Your task to perform on an android device: Open Google Maps and go to "Timeline" Image 0: 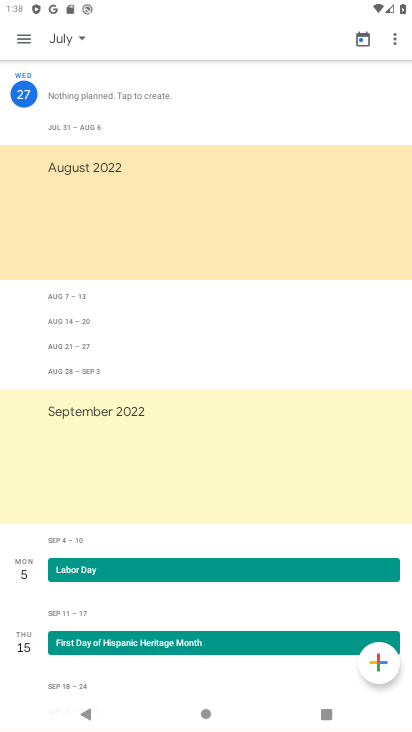
Step 0: press home button
Your task to perform on an android device: Open Google Maps and go to "Timeline" Image 1: 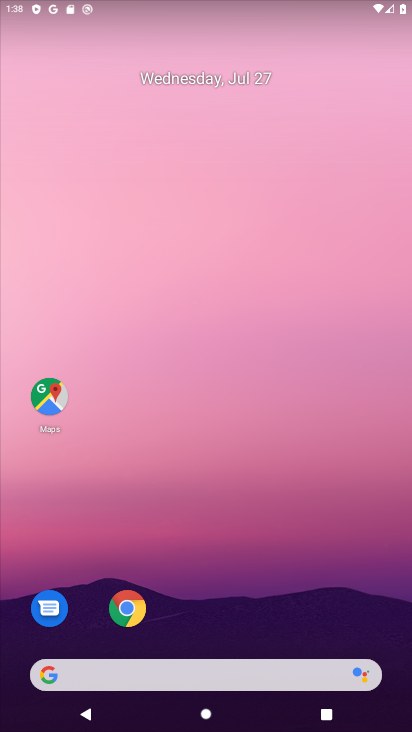
Step 1: click (30, 706)
Your task to perform on an android device: Open Google Maps and go to "Timeline" Image 2: 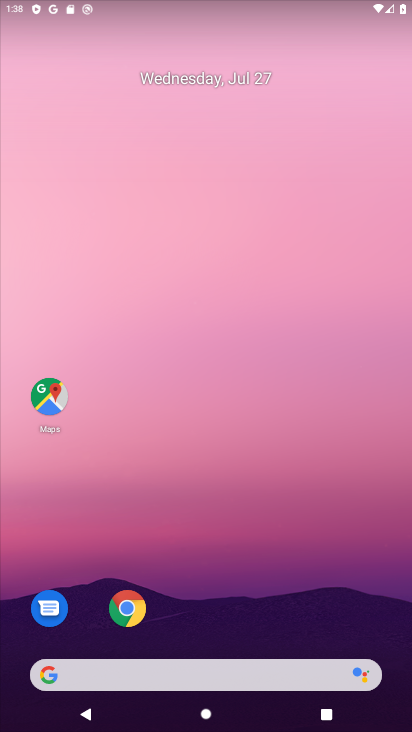
Step 2: click (61, 411)
Your task to perform on an android device: Open Google Maps and go to "Timeline" Image 3: 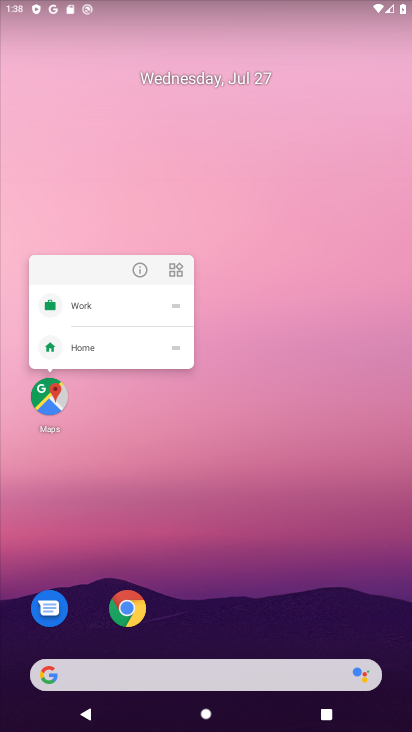
Step 3: click (63, 390)
Your task to perform on an android device: Open Google Maps and go to "Timeline" Image 4: 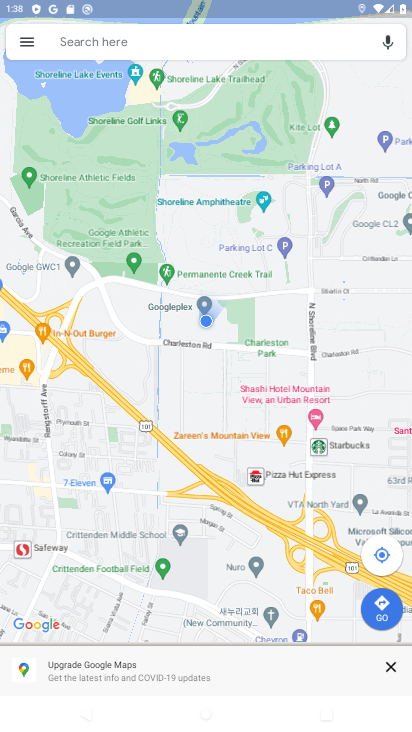
Step 4: click (26, 43)
Your task to perform on an android device: Open Google Maps and go to "Timeline" Image 5: 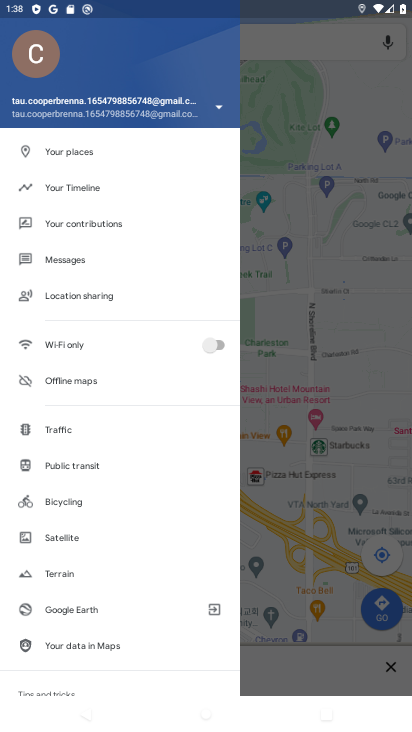
Step 5: click (54, 186)
Your task to perform on an android device: Open Google Maps and go to "Timeline" Image 6: 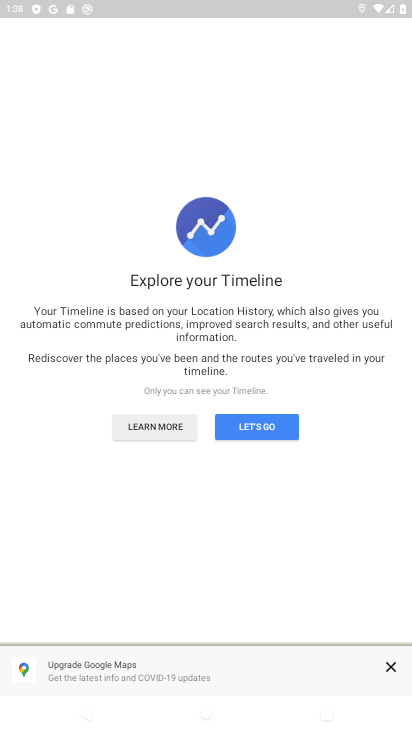
Step 6: task complete